Your task to perform on an android device: check data usage Image 0: 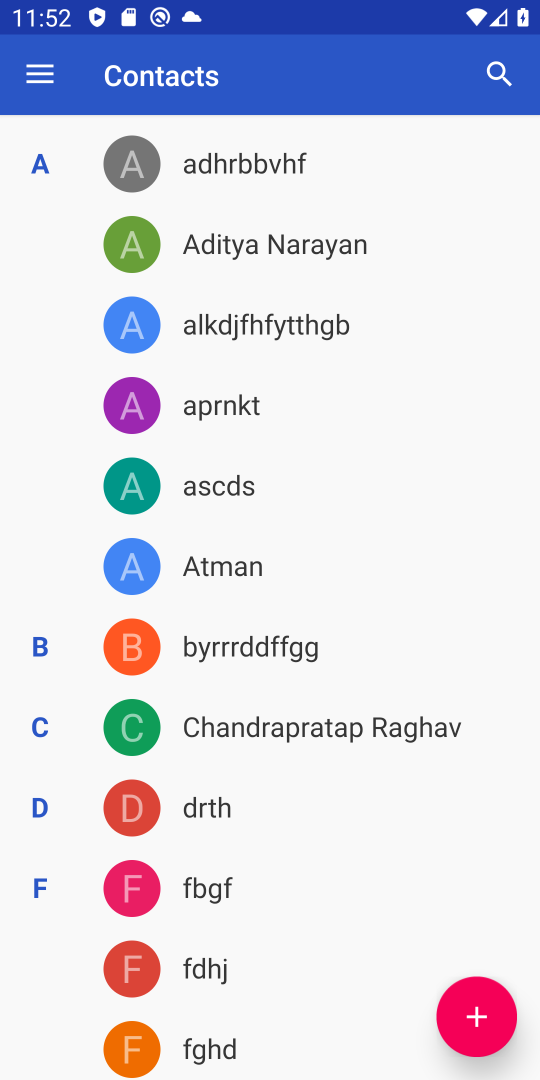
Step 0: press home button
Your task to perform on an android device: check data usage Image 1: 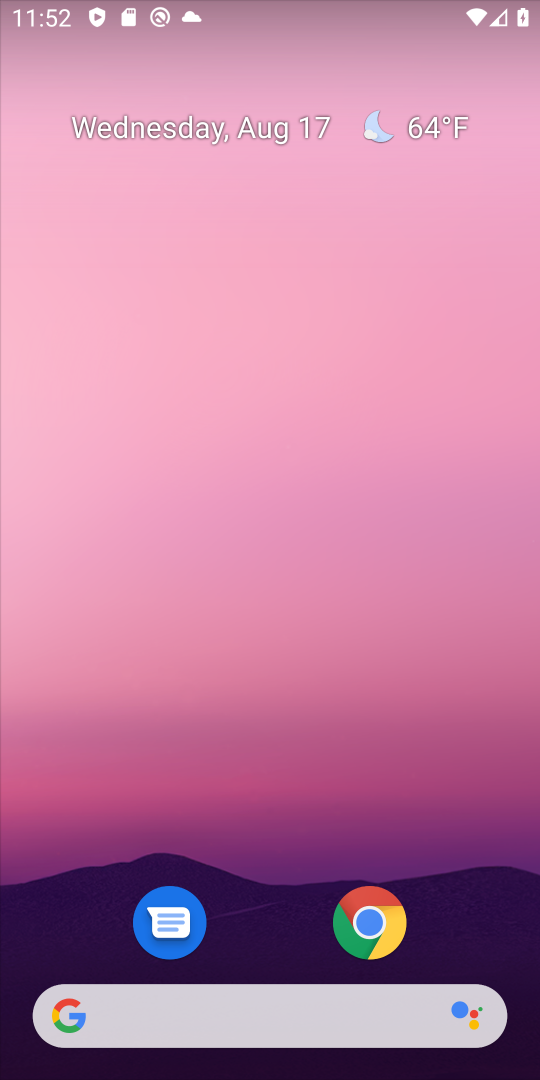
Step 1: drag from (269, 862) to (302, 206)
Your task to perform on an android device: check data usage Image 2: 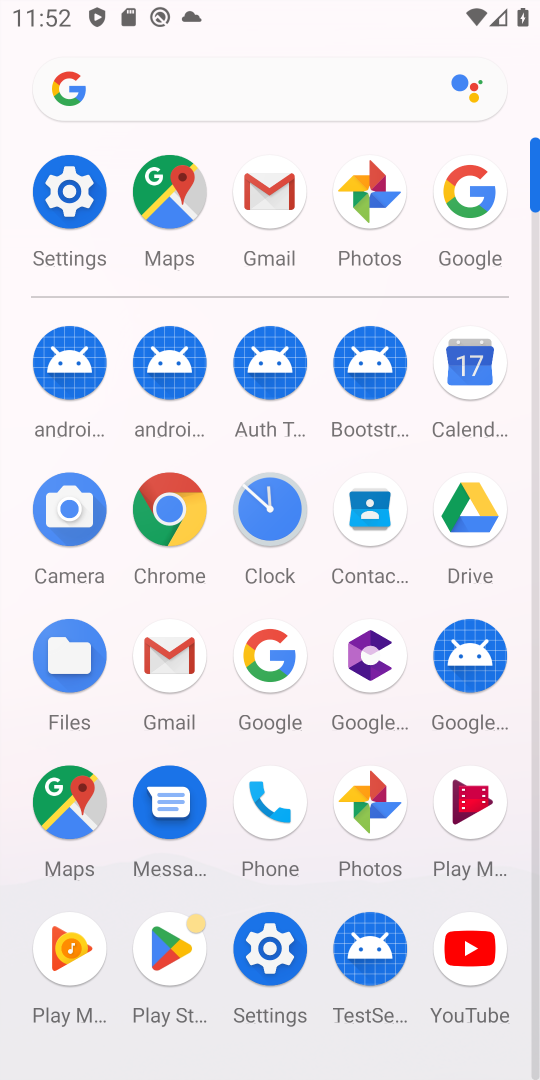
Step 2: click (70, 193)
Your task to perform on an android device: check data usage Image 3: 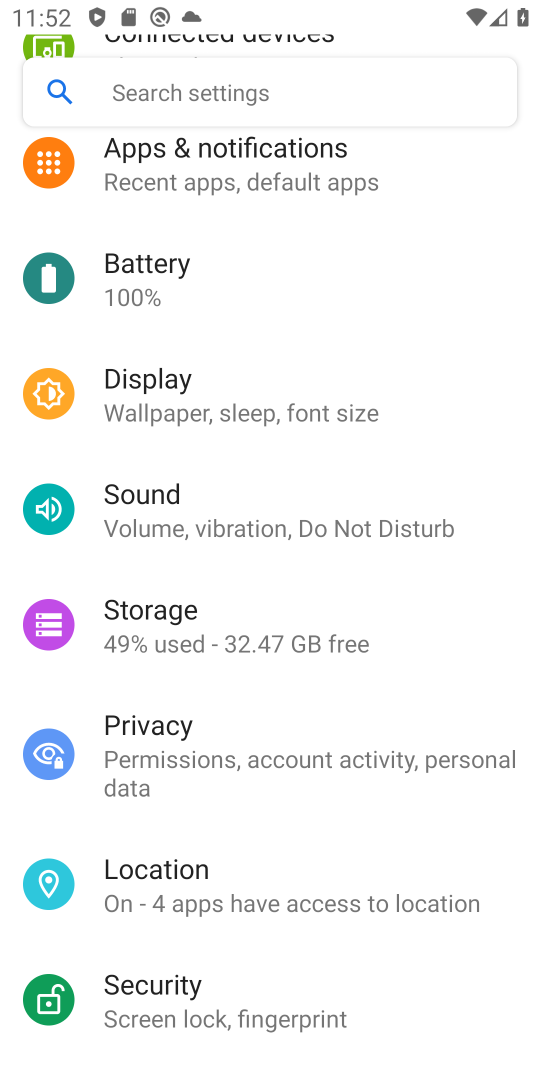
Step 3: drag from (265, 287) to (0, 848)
Your task to perform on an android device: check data usage Image 4: 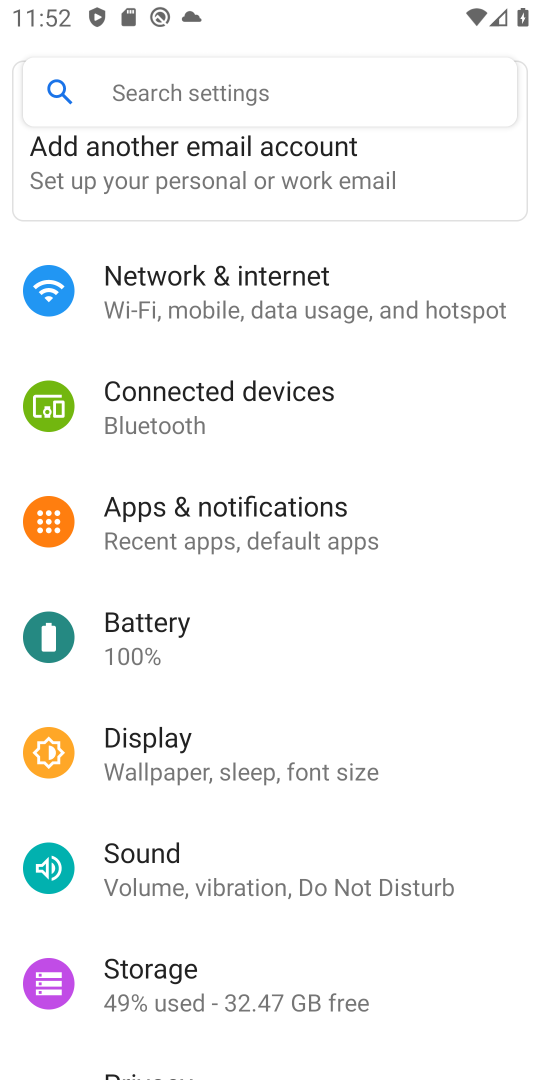
Step 4: click (224, 283)
Your task to perform on an android device: check data usage Image 5: 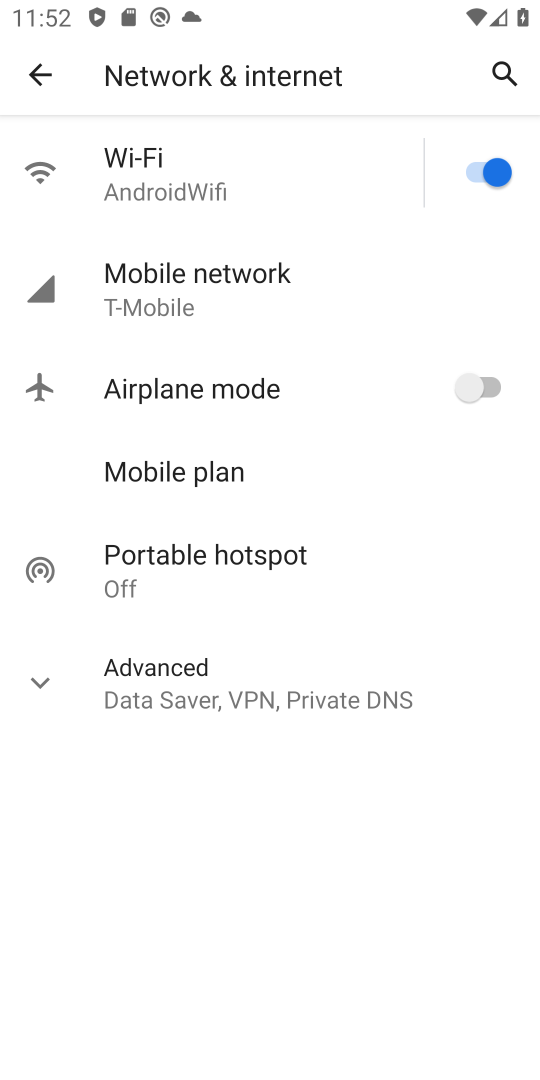
Step 5: click (182, 275)
Your task to perform on an android device: check data usage Image 6: 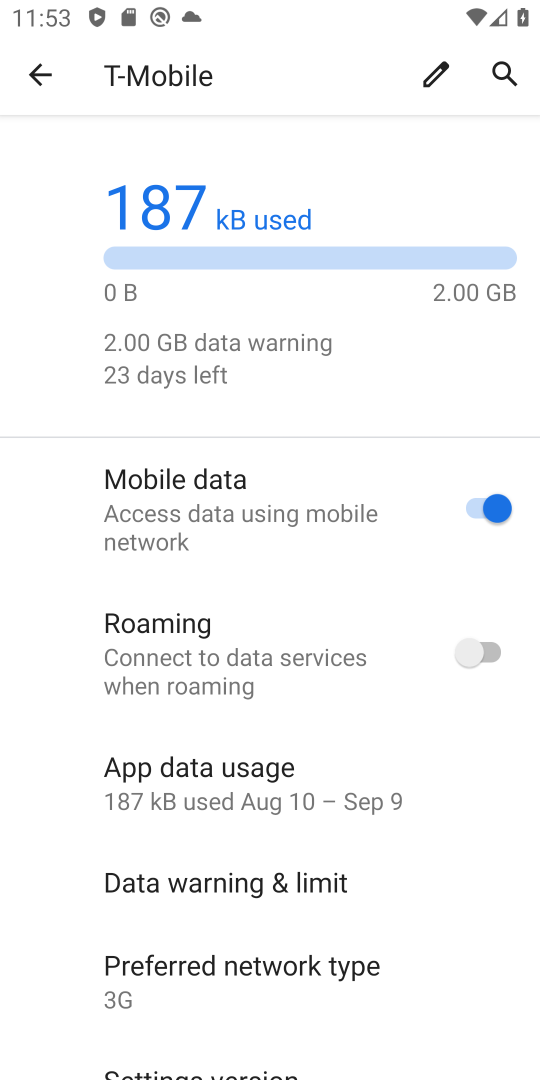
Step 6: task complete